Your task to perform on an android device: check battery use Image 0: 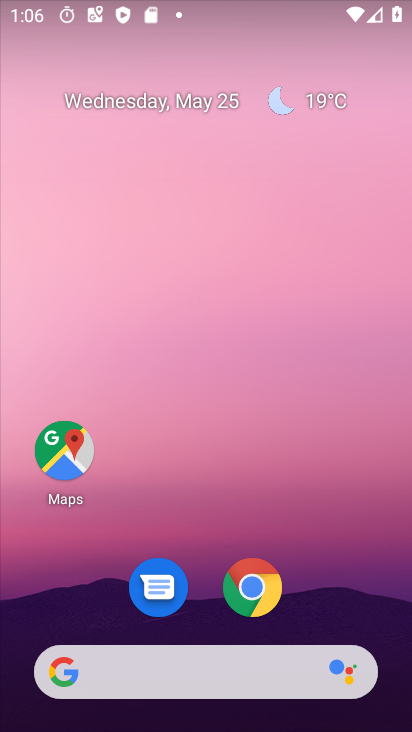
Step 0: drag from (197, 727) to (197, 28)
Your task to perform on an android device: check battery use Image 1: 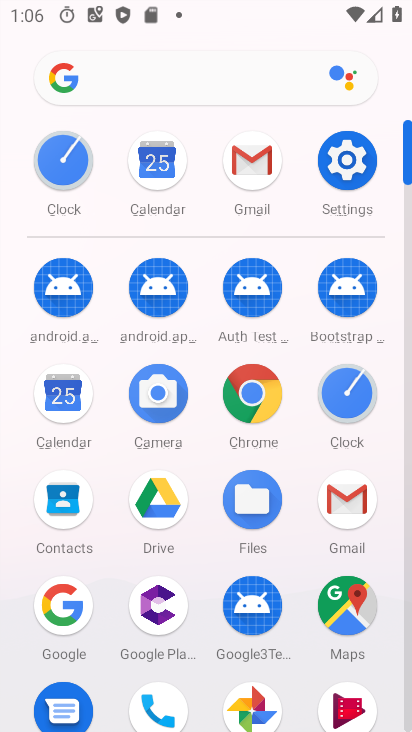
Step 1: click (345, 160)
Your task to perform on an android device: check battery use Image 2: 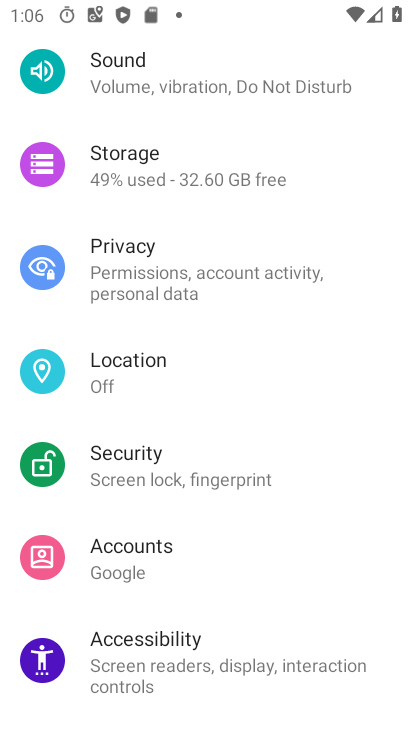
Step 2: drag from (155, 202) to (195, 571)
Your task to perform on an android device: check battery use Image 3: 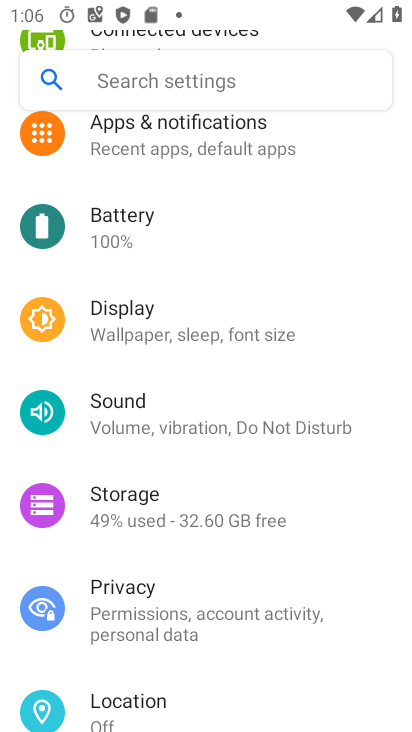
Step 3: click (110, 229)
Your task to perform on an android device: check battery use Image 4: 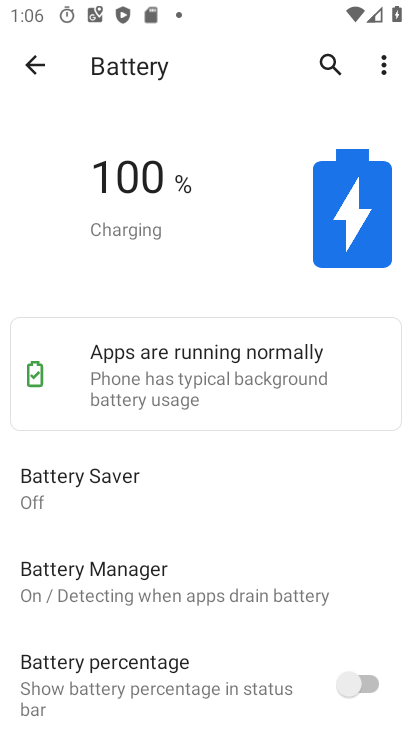
Step 4: click (384, 71)
Your task to perform on an android device: check battery use Image 5: 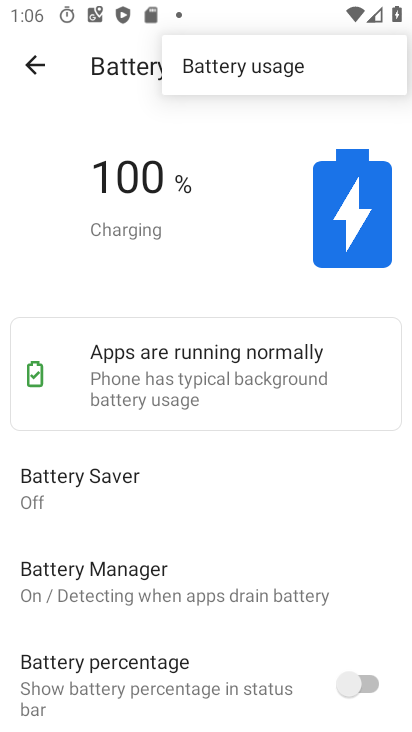
Step 5: click (238, 64)
Your task to perform on an android device: check battery use Image 6: 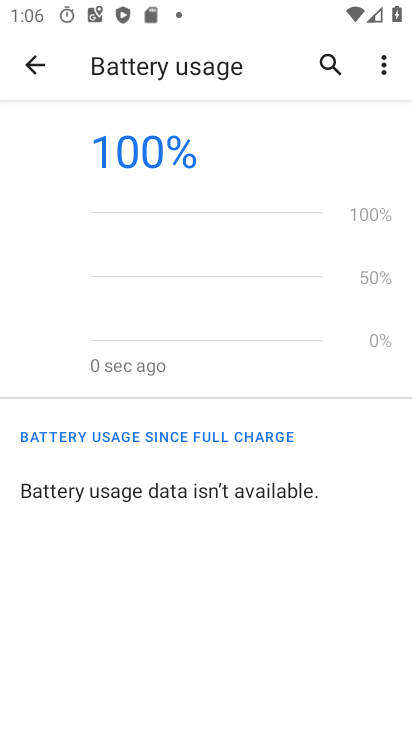
Step 6: task complete